Your task to perform on an android device: change text size in settings app Image 0: 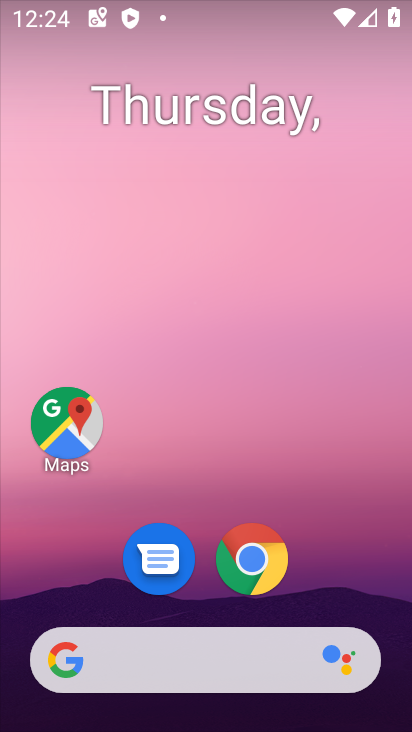
Step 0: drag from (353, 536) to (369, 260)
Your task to perform on an android device: change text size in settings app Image 1: 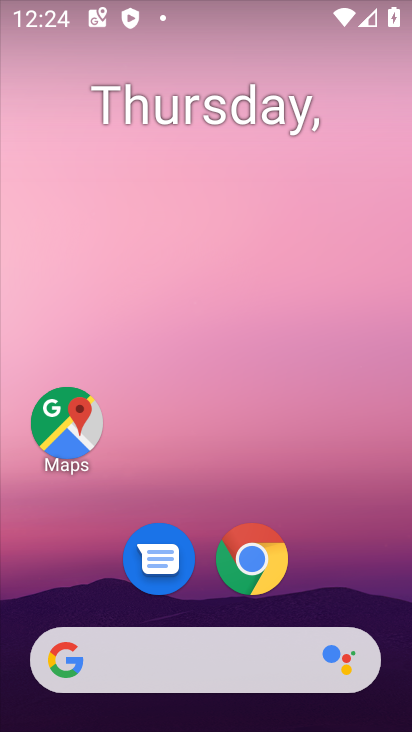
Step 1: drag from (366, 625) to (347, 92)
Your task to perform on an android device: change text size in settings app Image 2: 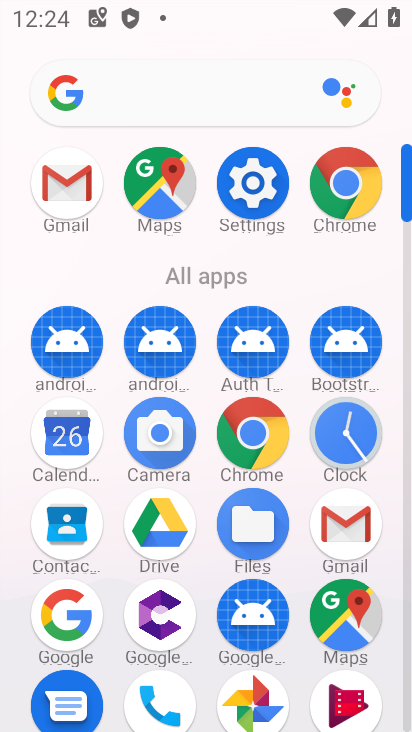
Step 2: click (272, 161)
Your task to perform on an android device: change text size in settings app Image 3: 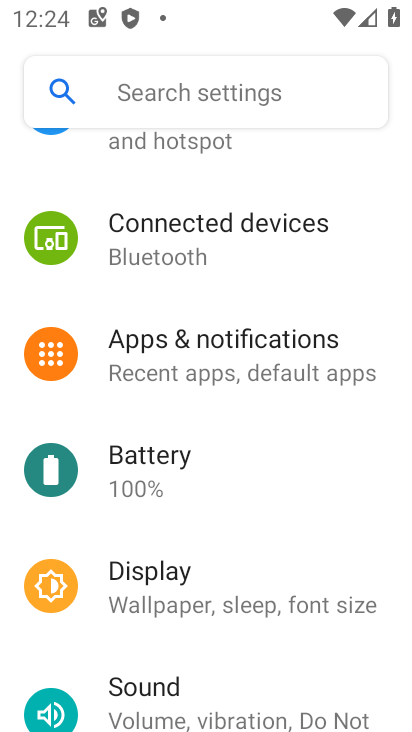
Step 3: click (177, 576)
Your task to perform on an android device: change text size in settings app Image 4: 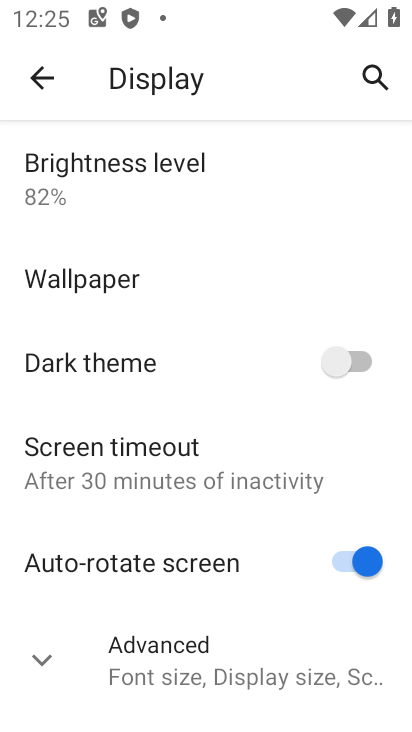
Step 4: click (161, 640)
Your task to perform on an android device: change text size in settings app Image 5: 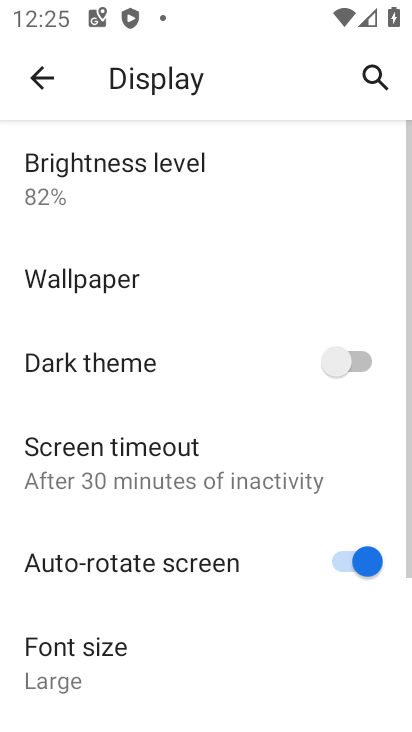
Step 5: click (160, 629)
Your task to perform on an android device: change text size in settings app Image 6: 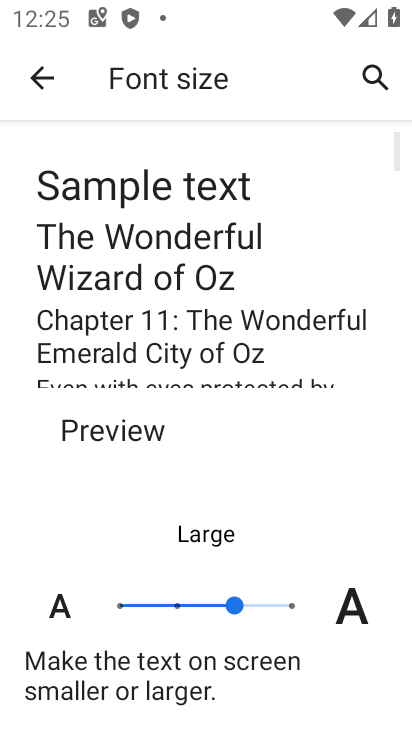
Step 6: task complete